Your task to perform on an android device: turn off picture-in-picture Image 0: 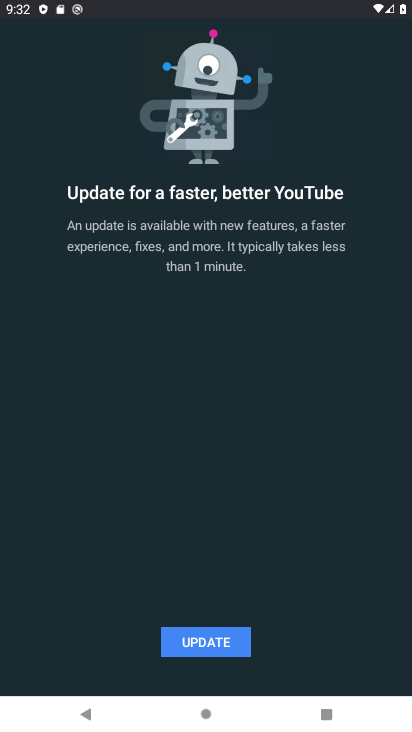
Step 0: press home button
Your task to perform on an android device: turn off picture-in-picture Image 1: 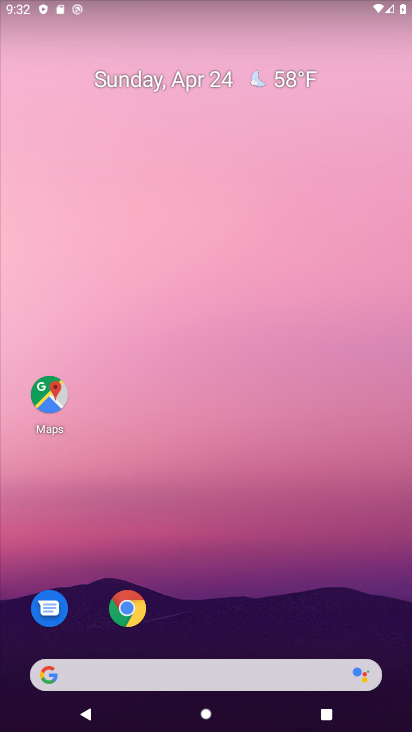
Step 1: drag from (319, 607) to (324, 95)
Your task to perform on an android device: turn off picture-in-picture Image 2: 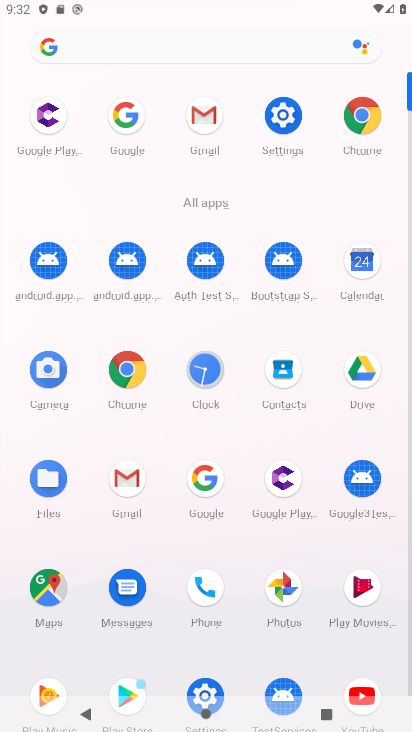
Step 2: click (362, 121)
Your task to perform on an android device: turn off picture-in-picture Image 3: 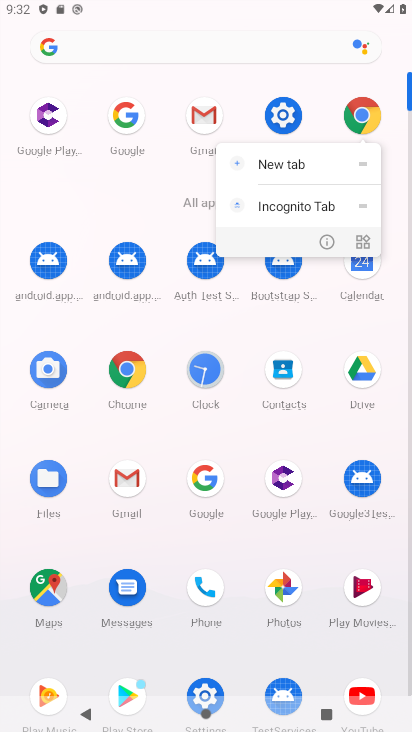
Step 3: click (328, 237)
Your task to perform on an android device: turn off picture-in-picture Image 4: 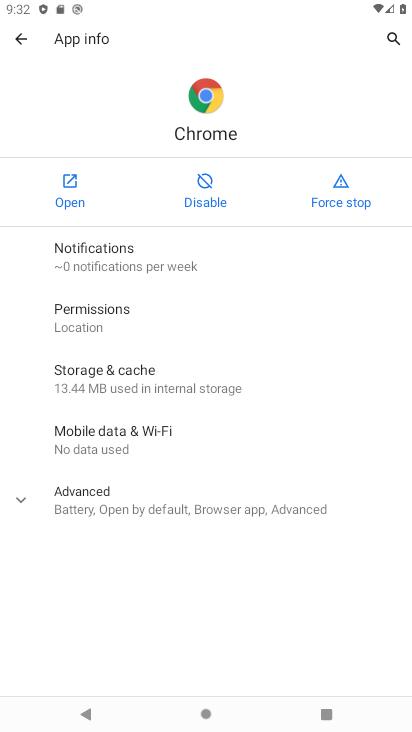
Step 4: click (100, 498)
Your task to perform on an android device: turn off picture-in-picture Image 5: 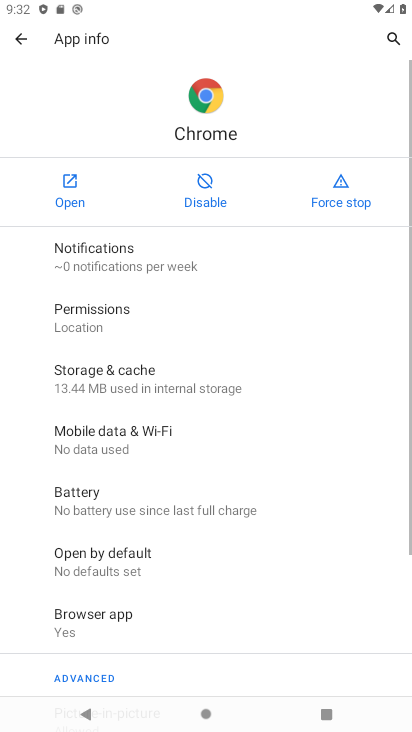
Step 5: drag from (181, 605) to (260, 205)
Your task to perform on an android device: turn off picture-in-picture Image 6: 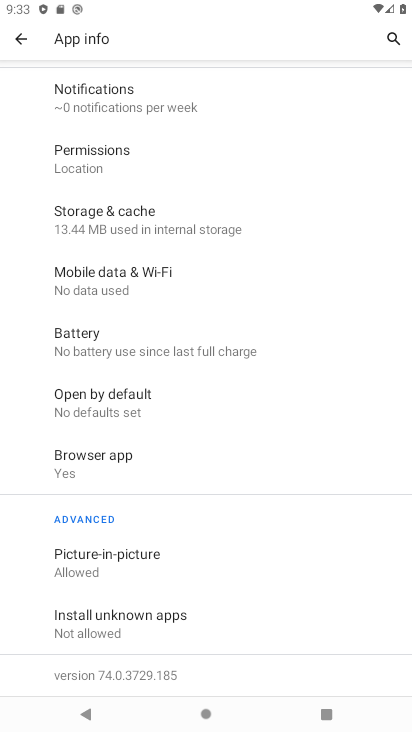
Step 6: drag from (257, 506) to (299, 214)
Your task to perform on an android device: turn off picture-in-picture Image 7: 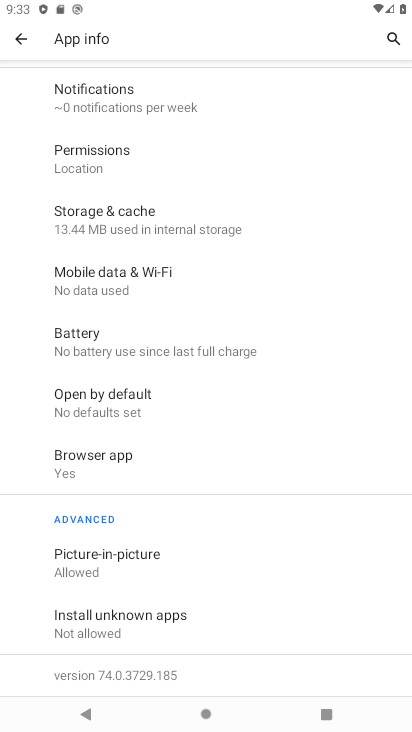
Step 7: click (129, 562)
Your task to perform on an android device: turn off picture-in-picture Image 8: 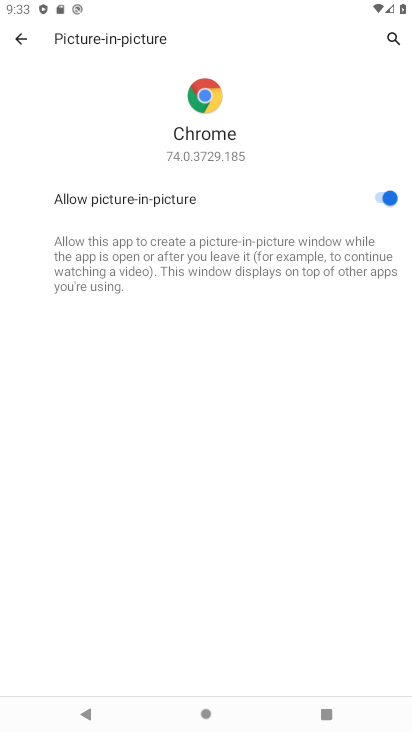
Step 8: click (377, 199)
Your task to perform on an android device: turn off picture-in-picture Image 9: 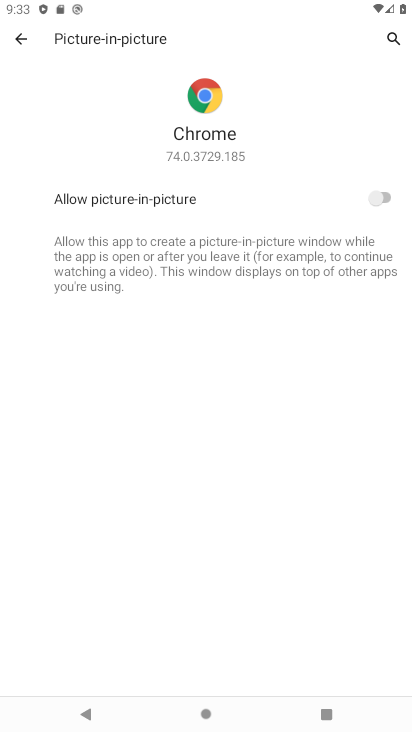
Step 9: task complete